Your task to perform on an android device: turn on sleep mode Image 0: 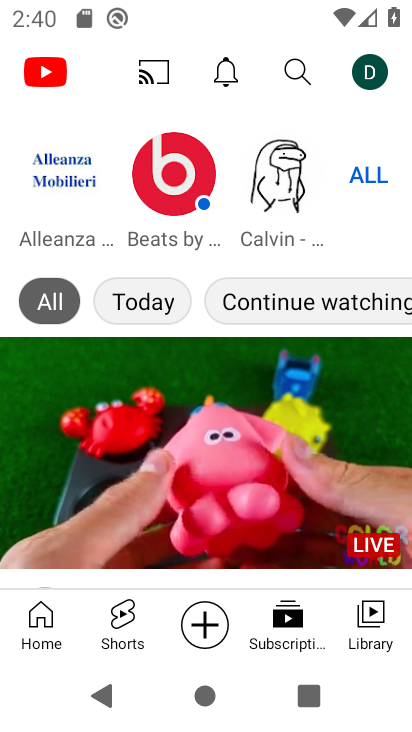
Step 0: press home button
Your task to perform on an android device: turn on sleep mode Image 1: 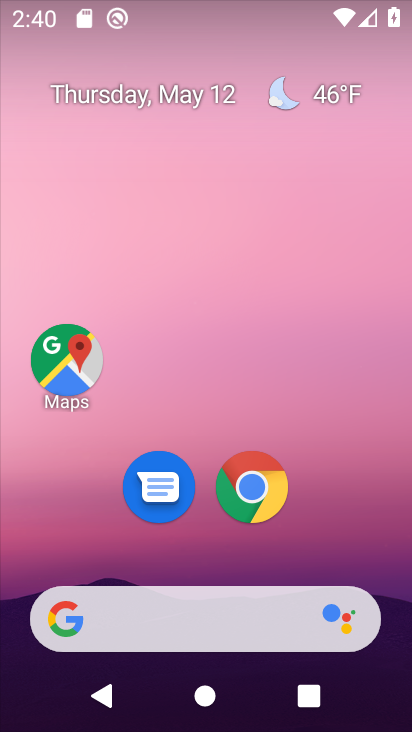
Step 1: drag from (339, 554) to (242, 35)
Your task to perform on an android device: turn on sleep mode Image 2: 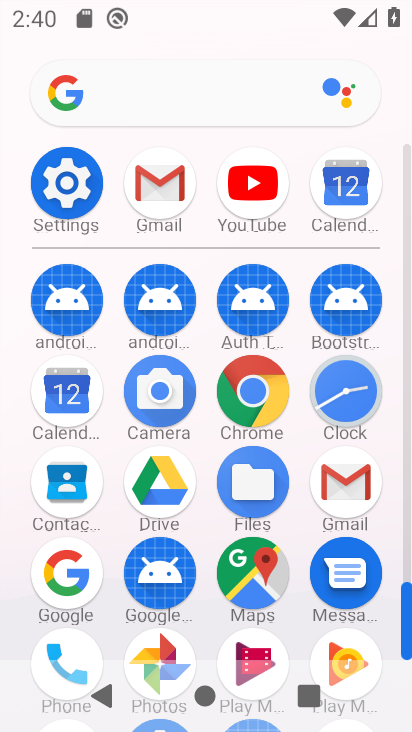
Step 2: click (84, 168)
Your task to perform on an android device: turn on sleep mode Image 3: 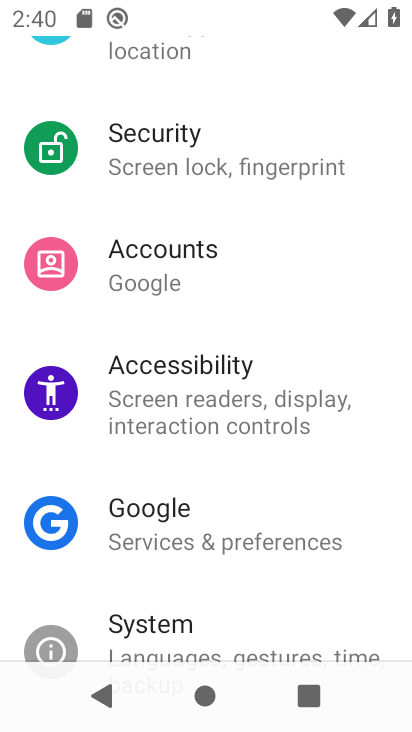
Step 3: drag from (147, 247) to (156, 386)
Your task to perform on an android device: turn on sleep mode Image 4: 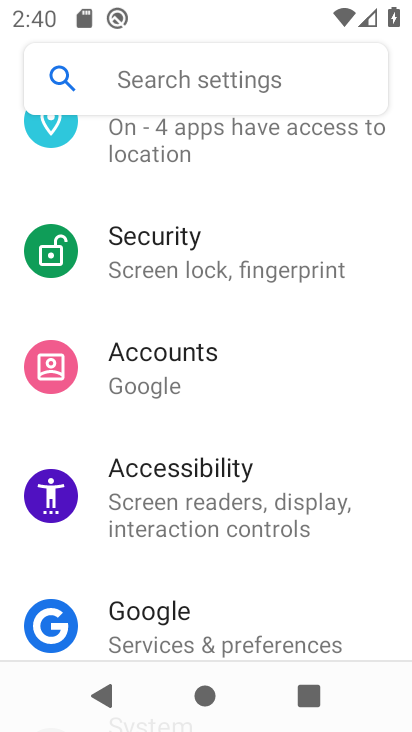
Step 4: drag from (157, 138) to (206, 370)
Your task to perform on an android device: turn on sleep mode Image 5: 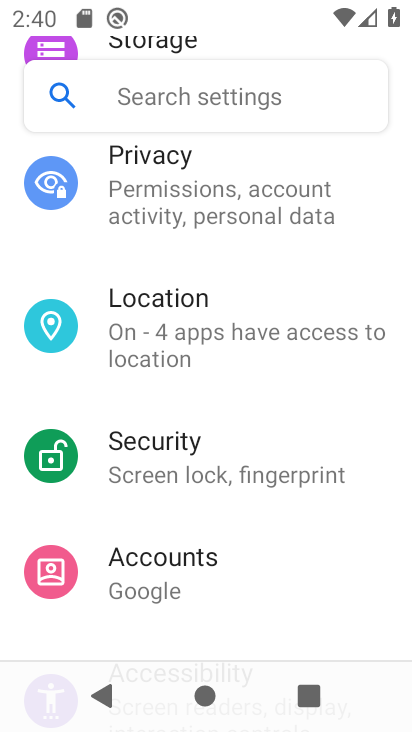
Step 5: drag from (228, 183) to (245, 323)
Your task to perform on an android device: turn on sleep mode Image 6: 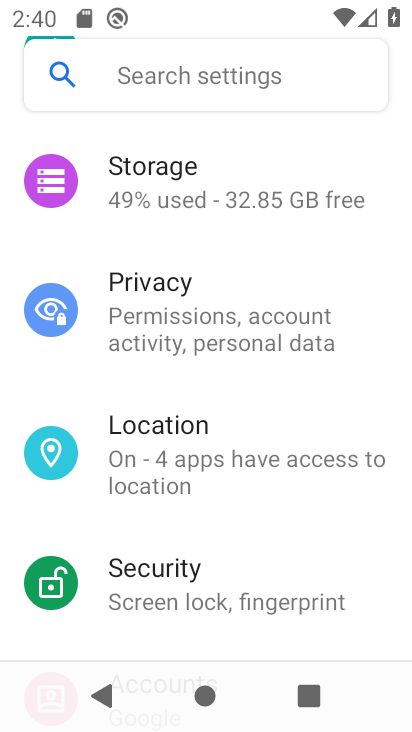
Step 6: drag from (230, 230) to (244, 398)
Your task to perform on an android device: turn on sleep mode Image 7: 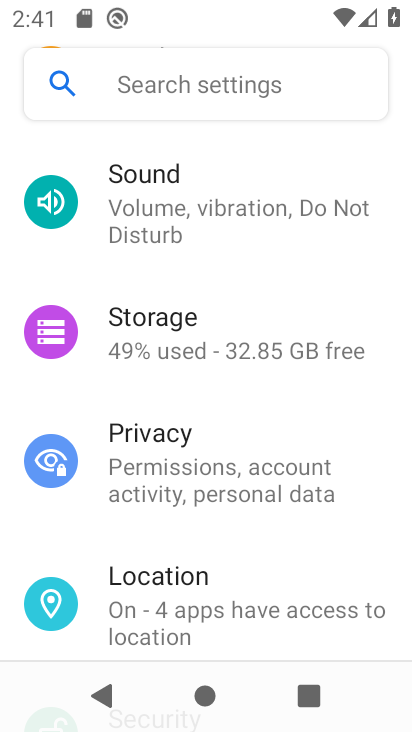
Step 7: drag from (227, 243) to (247, 454)
Your task to perform on an android device: turn on sleep mode Image 8: 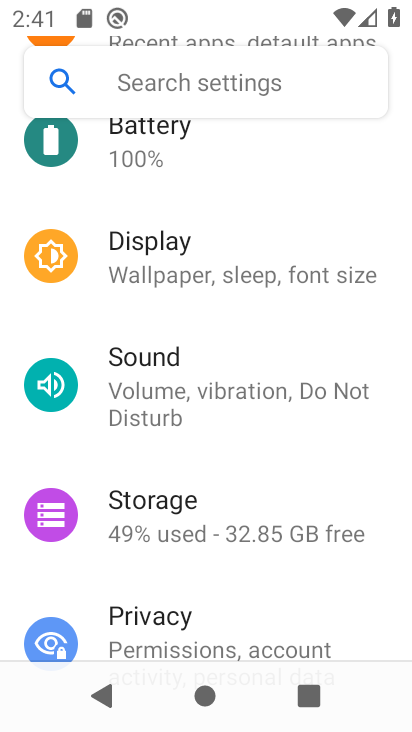
Step 8: click (200, 280)
Your task to perform on an android device: turn on sleep mode Image 9: 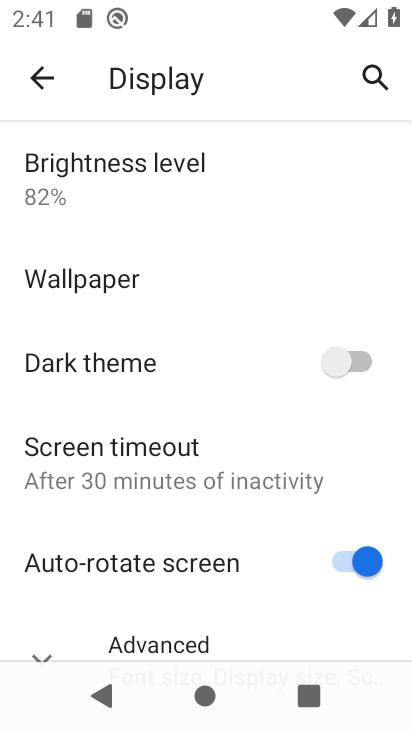
Step 9: drag from (199, 585) to (182, 415)
Your task to perform on an android device: turn on sleep mode Image 10: 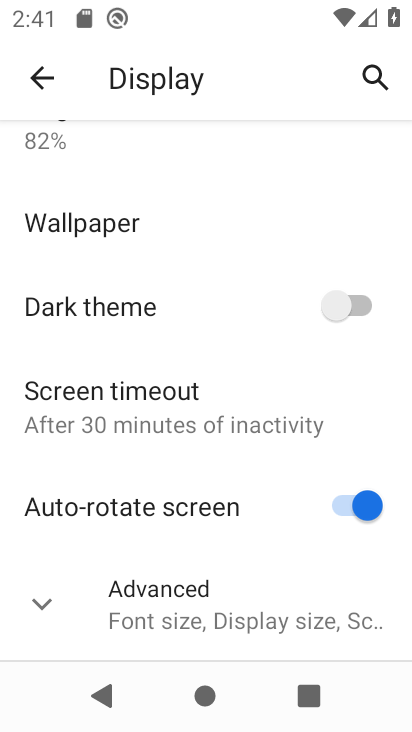
Step 10: click (338, 609)
Your task to perform on an android device: turn on sleep mode Image 11: 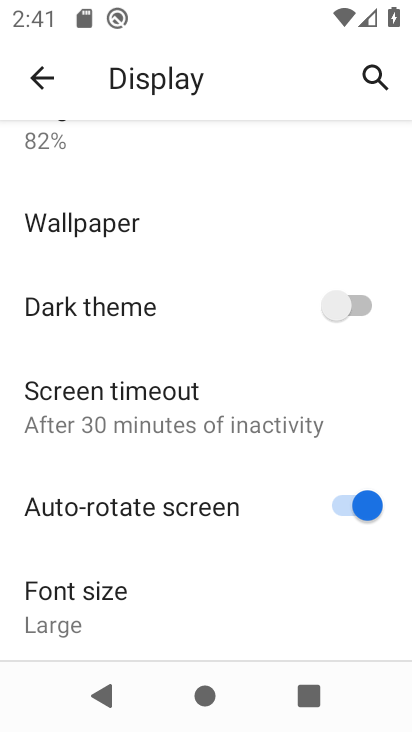
Step 11: task complete